Your task to perform on an android device: turn on priority inbox in the gmail app Image 0: 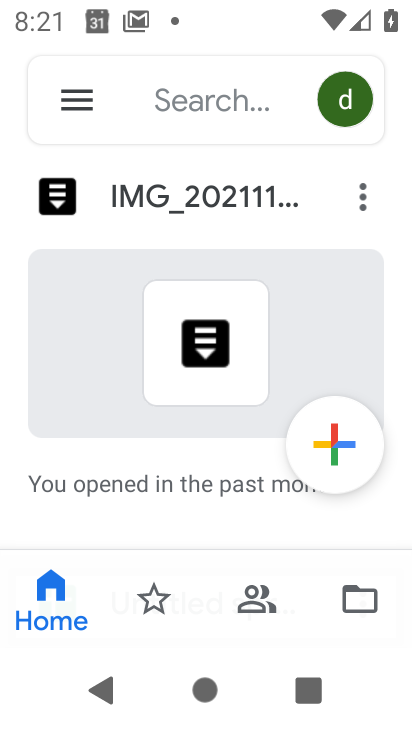
Step 0: press home button
Your task to perform on an android device: turn on priority inbox in the gmail app Image 1: 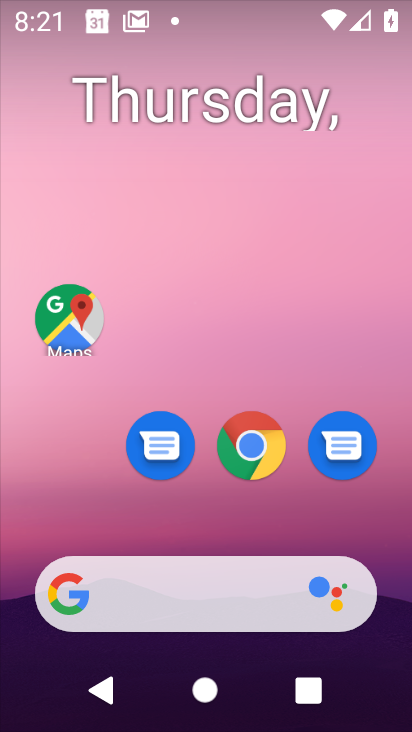
Step 1: drag from (232, 537) to (159, 44)
Your task to perform on an android device: turn on priority inbox in the gmail app Image 2: 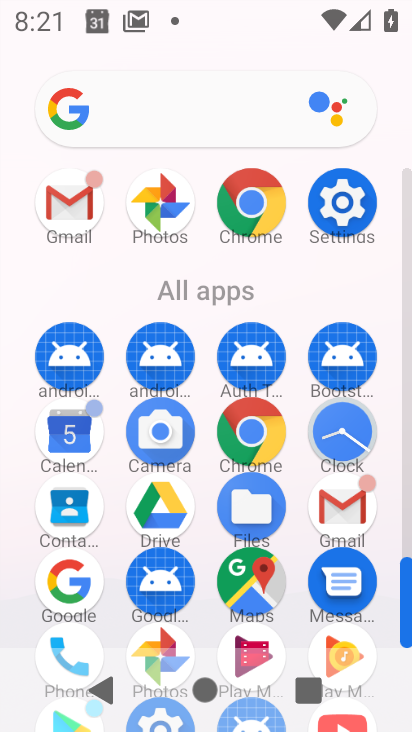
Step 2: click (335, 498)
Your task to perform on an android device: turn on priority inbox in the gmail app Image 3: 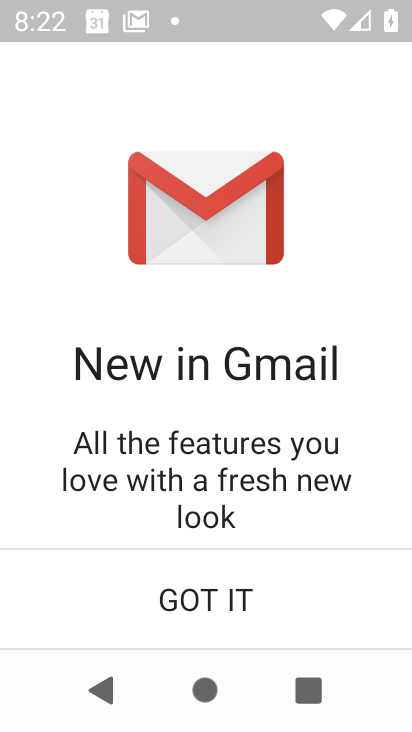
Step 3: click (229, 594)
Your task to perform on an android device: turn on priority inbox in the gmail app Image 4: 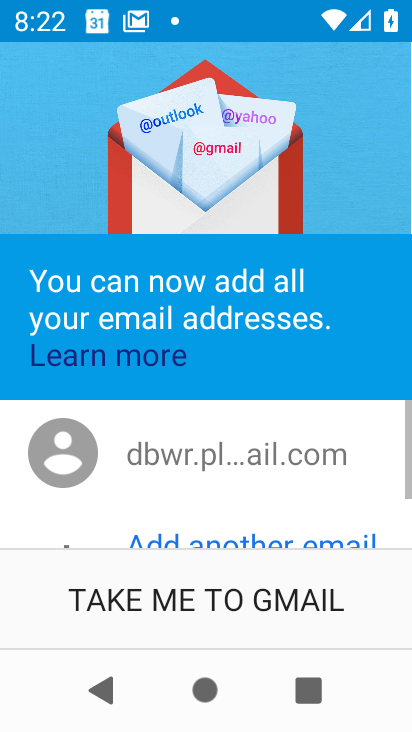
Step 4: click (229, 594)
Your task to perform on an android device: turn on priority inbox in the gmail app Image 5: 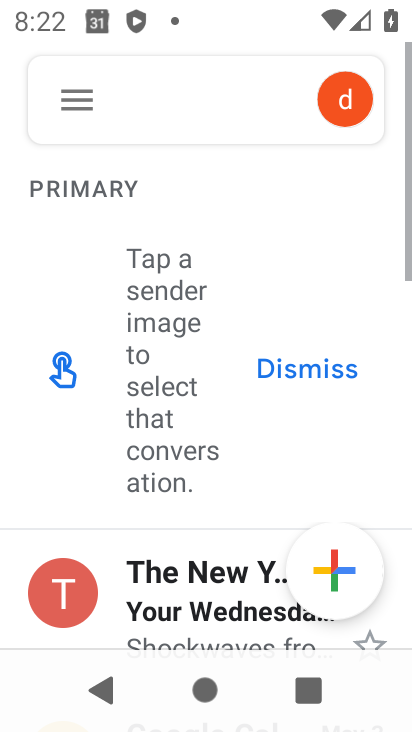
Step 5: click (65, 104)
Your task to perform on an android device: turn on priority inbox in the gmail app Image 6: 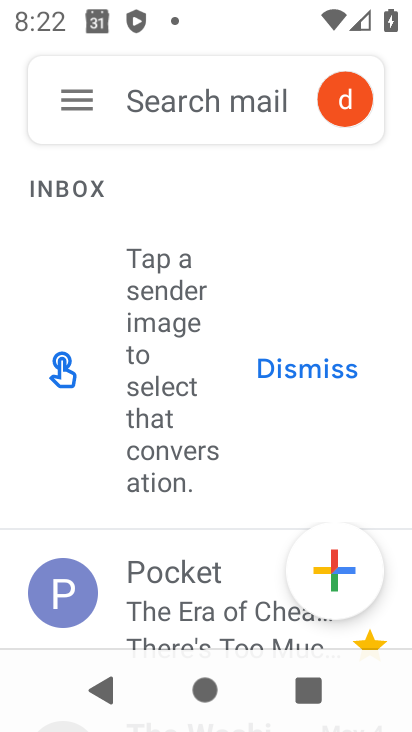
Step 6: click (74, 102)
Your task to perform on an android device: turn on priority inbox in the gmail app Image 7: 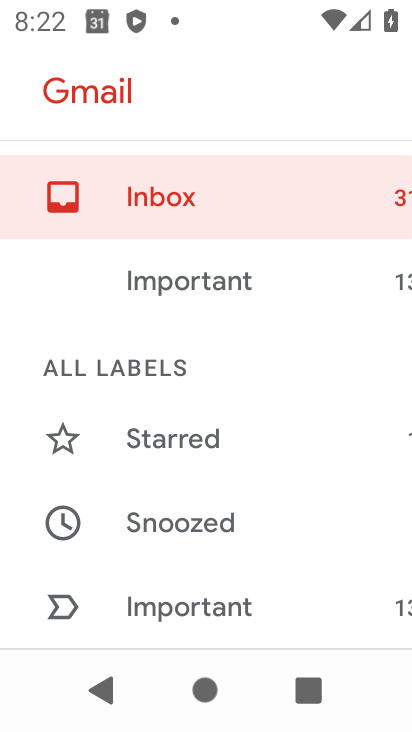
Step 7: drag from (126, 483) to (99, 198)
Your task to perform on an android device: turn on priority inbox in the gmail app Image 8: 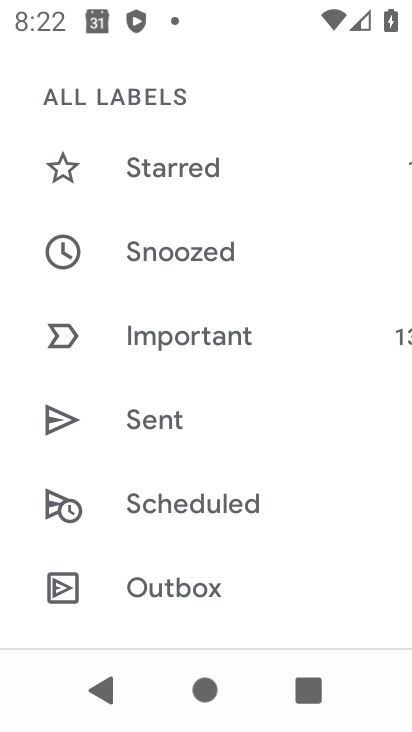
Step 8: drag from (192, 595) to (149, 290)
Your task to perform on an android device: turn on priority inbox in the gmail app Image 9: 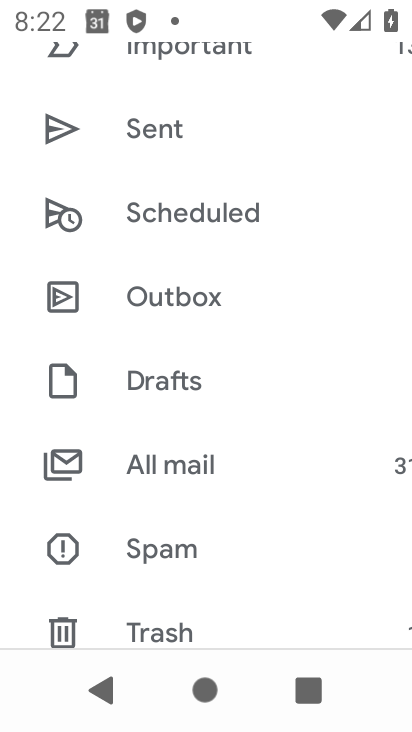
Step 9: drag from (247, 605) to (178, 18)
Your task to perform on an android device: turn on priority inbox in the gmail app Image 10: 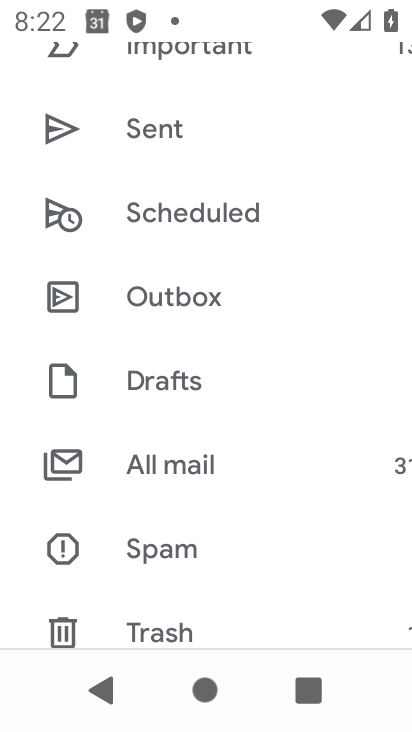
Step 10: drag from (237, 586) to (219, 148)
Your task to perform on an android device: turn on priority inbox in the gmail app Image 11: 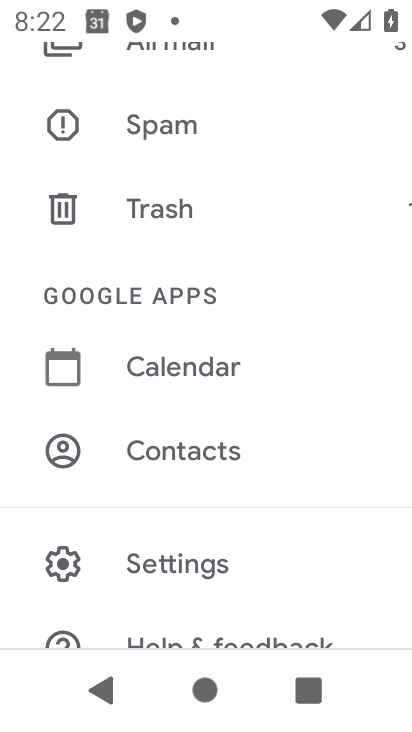
Step 11: click (185, 573)
Your task to perform on an android device: turn on priority inbox in the gmail app Image 12: 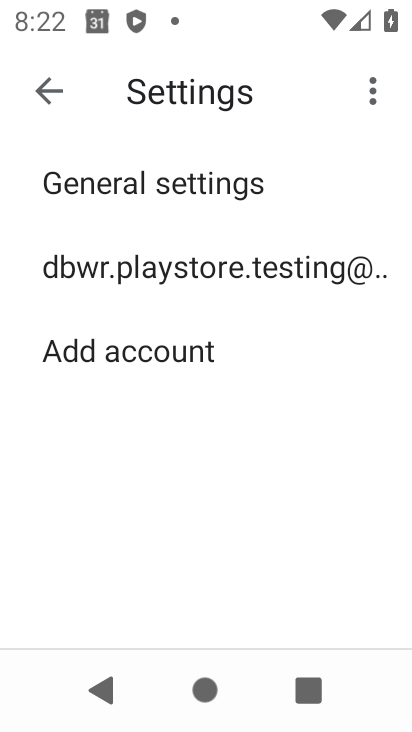
Step 12: click (187, 253)
Your task to perform on an android device: turn on priority inbox in the gmail app Image 13: 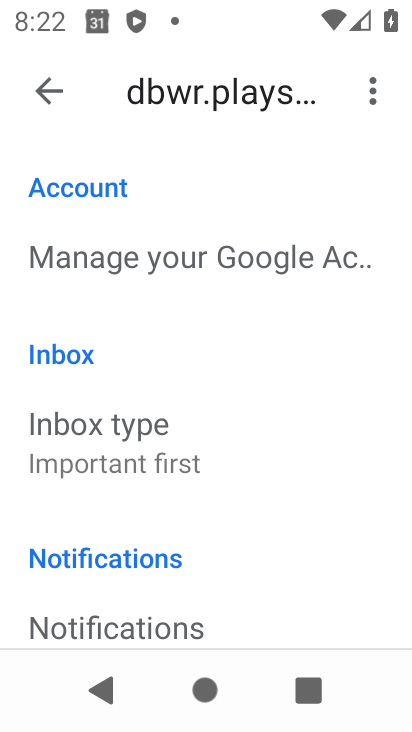
Step 13: drag from (165, 514) to (144, 144)
Your task to perform on an android device: turn on priority inbox in the gmail app Image 14: 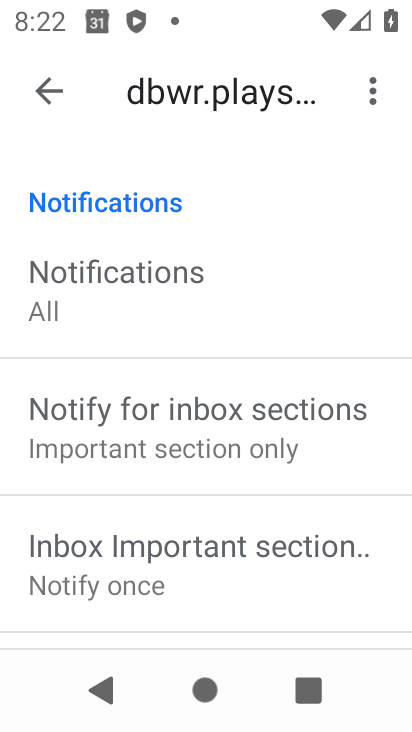
Step 14: drag from (153, 252) to (143, 395)
Your task to perform on an android device: turn on priority inbox in the gmail app Image 15: 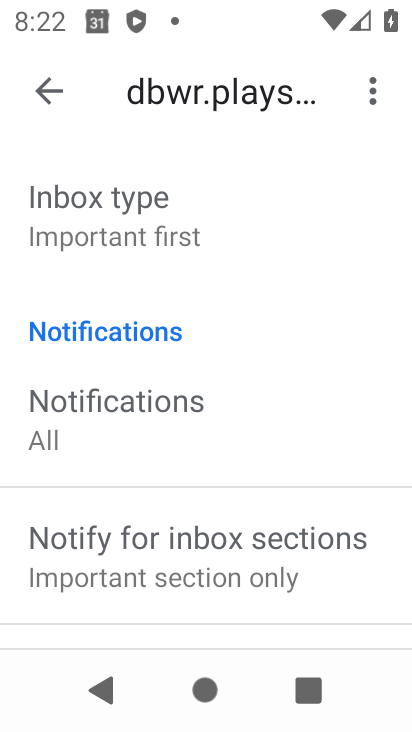
Step 15: click (106, 228)
Your task to perform on an android device: turn on priority inbox in the gmail app Image 16: 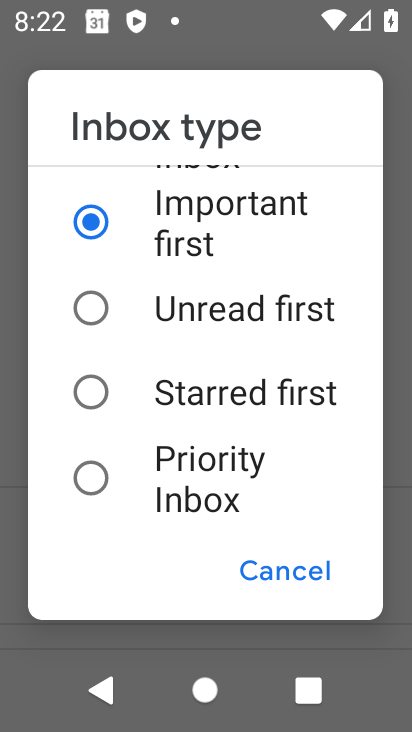
Step 16: click (106, 468)
Your task to perform on an android device: turn on priority inbox in the gmail app Image 17: 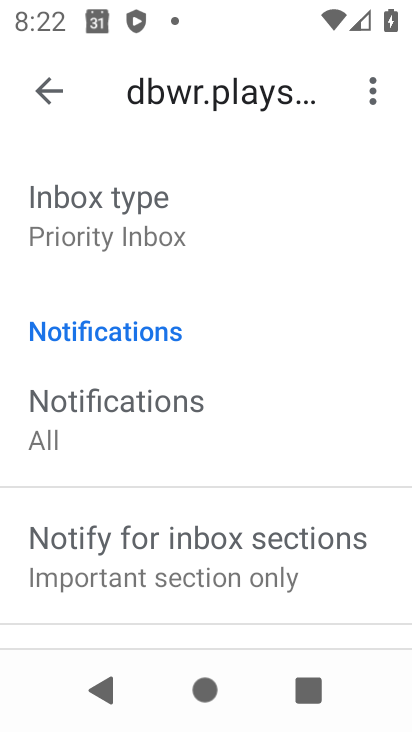
Step 17: task complete